Your task to perform on an android device: turn on the 24-hour format for clock Image 0: 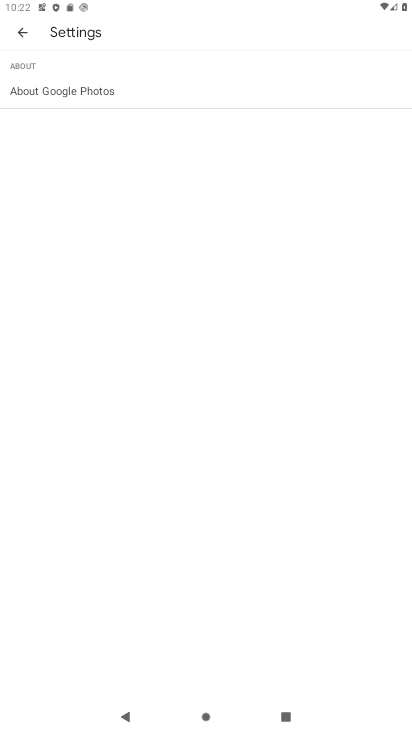
Step 0: press home button
Your task to perform on an android device: turn on the 24-hour format for clock Image 1: 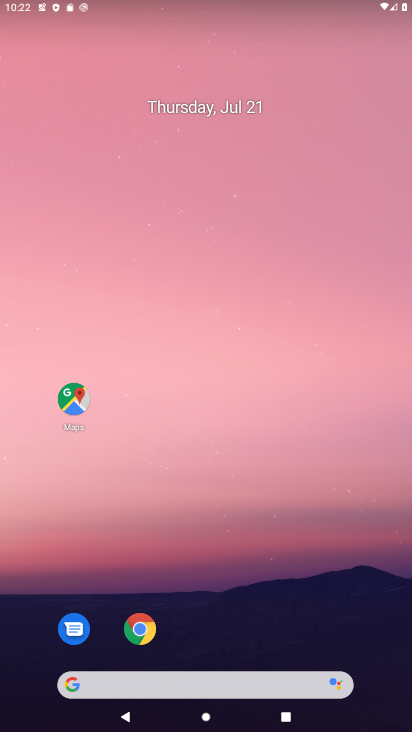
Step 1: drag from (274, 585) to (193, 41)
Your task to perform on an android device: turn on the 24-hour format for clock Image 2: 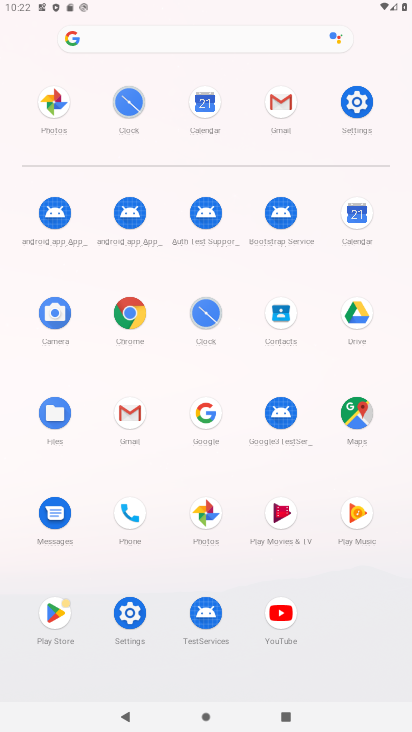
Step 2: click (198, 319)
Your task to perform on an android device: turn on the 24-hour format for clock Image 3: 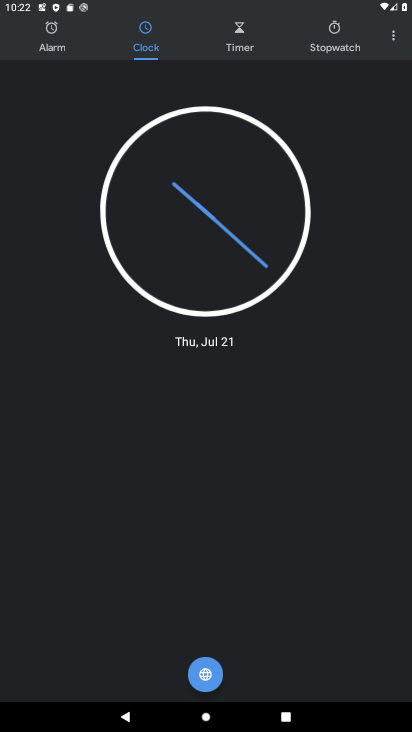
Step 3: click (398, 40)
Your task to perform on an android device: turn on the 24-hour format for clock Image 4: 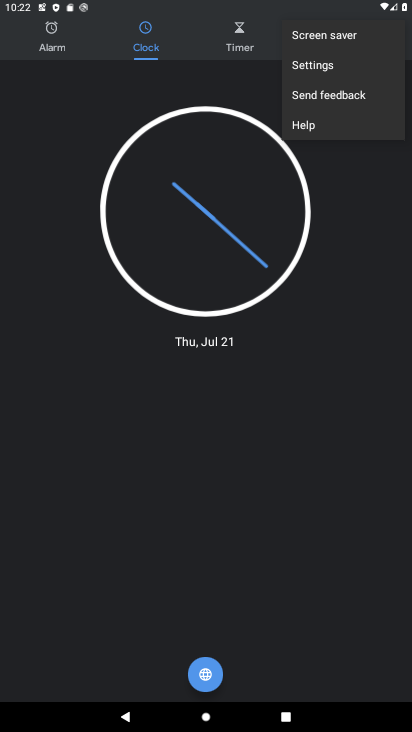
Step 4: click (353, 68)
Your task to perform on an android device: turn on the 24-hour format for clock Image 5: 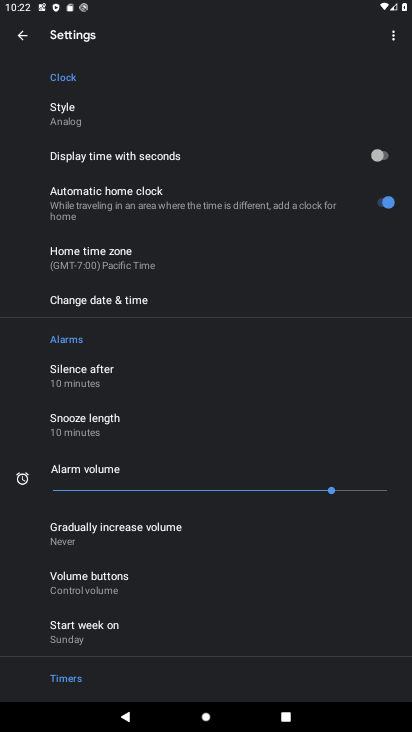
Step 5: click (86, 310)
Your task to perform on an android device: turn on the 24-hour format for clock Image 6: 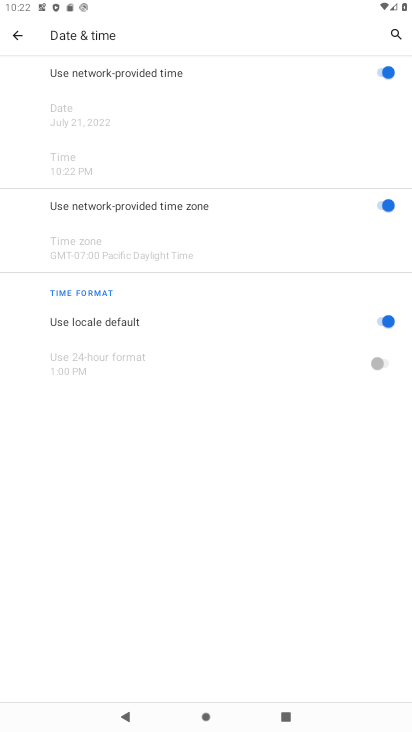
Step 6: click (377, 322)
Your task to perform on an android device: turn on the 24-hour format for clock Image 7: 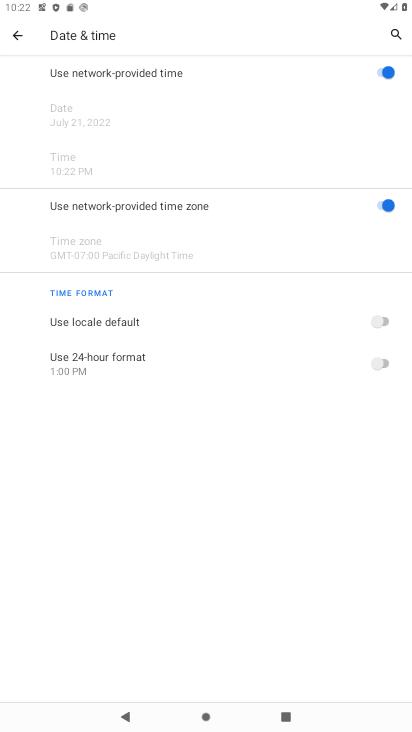
Step 7: click (385, 364)
Your task to perform on an android device: turn on the 24-hour format for clock Image 8: 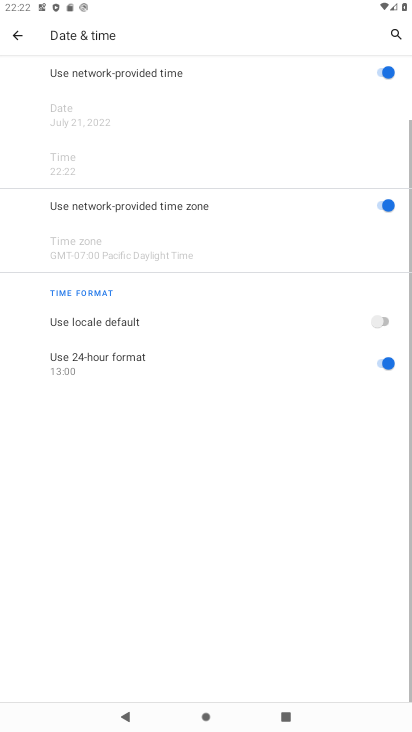
Step 8: task complete